Your task to perform on an android device: remove spam from my inbox in the gmail app Image 0: 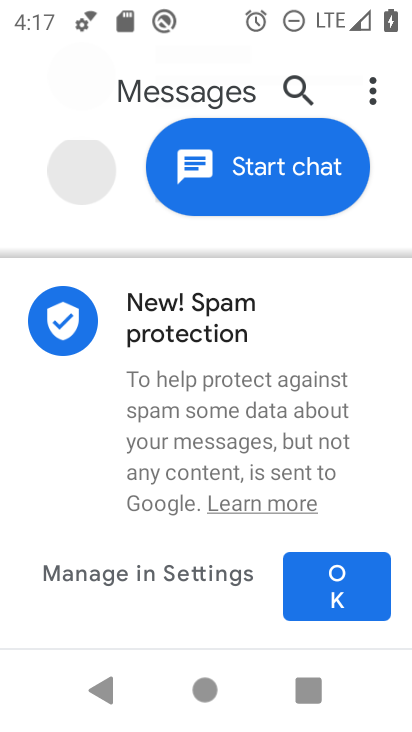
Step 0: press home button
Your task to perform on an android device: remove spam from my inbox in the gmail app Image 1: 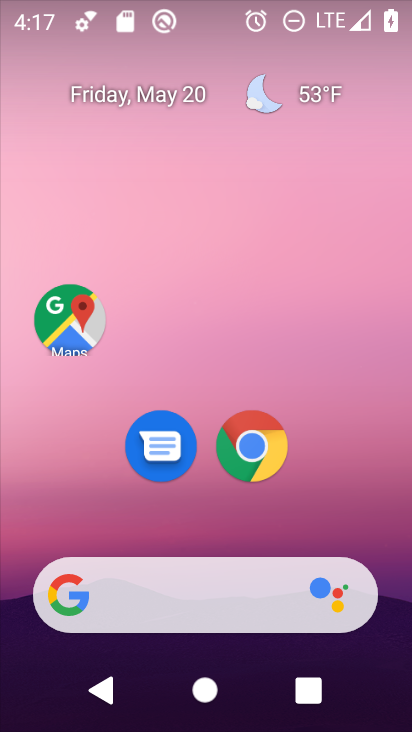
Step 1: drag from (344, 514) to (338, 71)
Your task to perform on an android device: remove spam from my inbox in the gmail app Image 2: 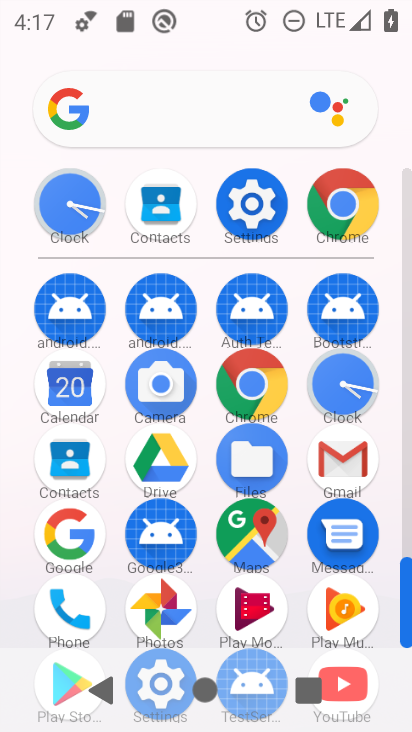
Step 2: click (360, 462)
Your task to perform on an android device: remove spam from my inbox in the gmail app Image 3: 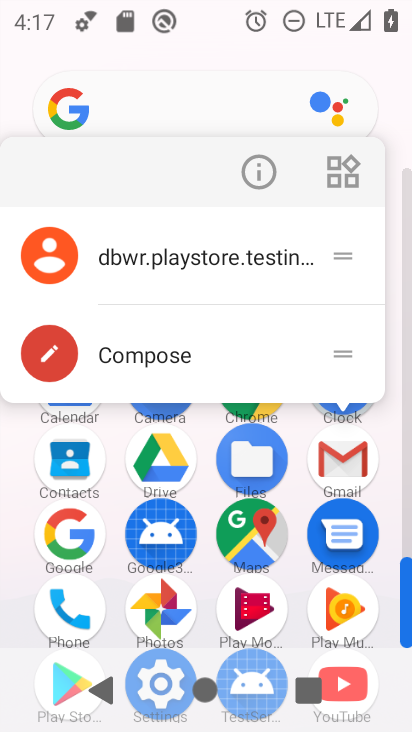
Step 3: click (360, 462)
Your task to perform on an android device: remove spam from my inbox in the gmail app Image 4: 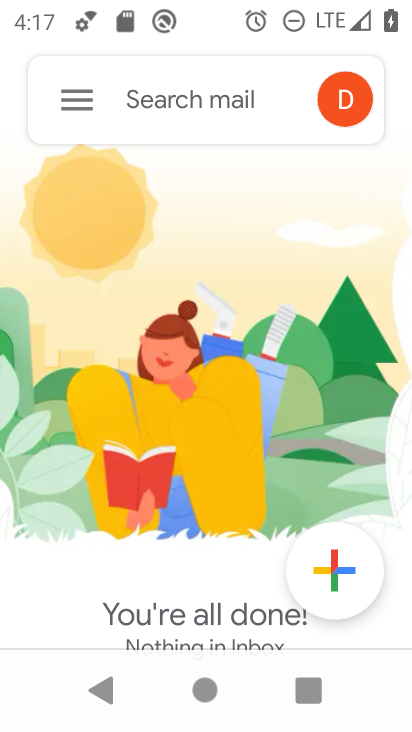
Step 4: click (87, 117)
Your task to perform on an android device: remove spam from my inbox in the gmail app Image 5: 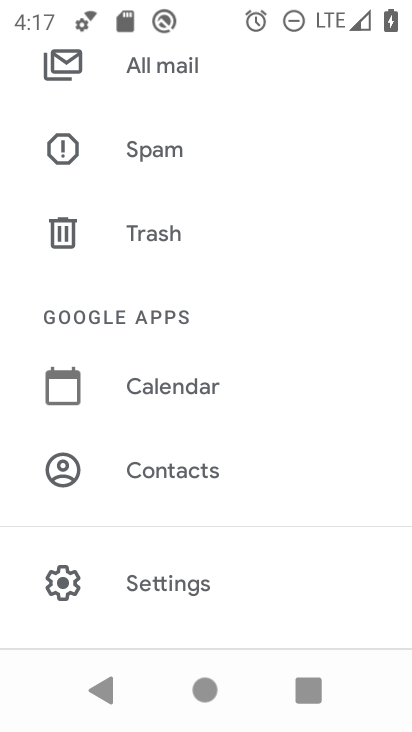
Step 5: click (128, 158)
Your task to perform on an android device: remove spam from my inbox in the gmail app Image 6: 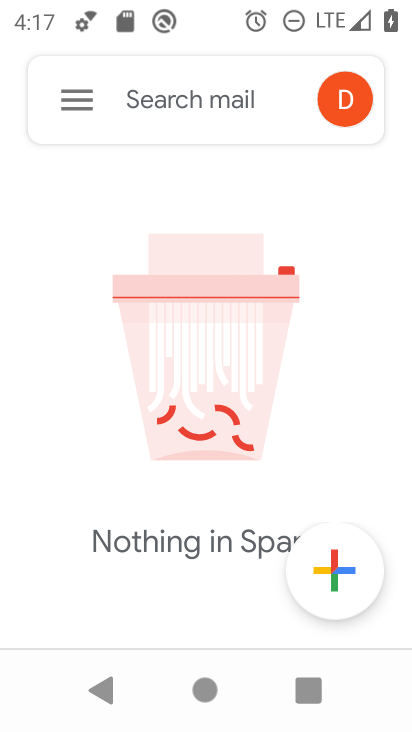
Step 6: task complete